Your task to perform on an android device: change text size in settings app Image 0: 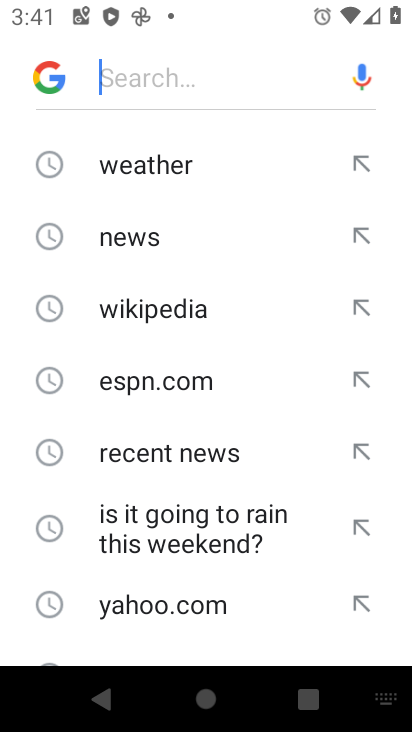
Step 0: press home button
Your task to perform on an android device: change text size in settings app Image 1: 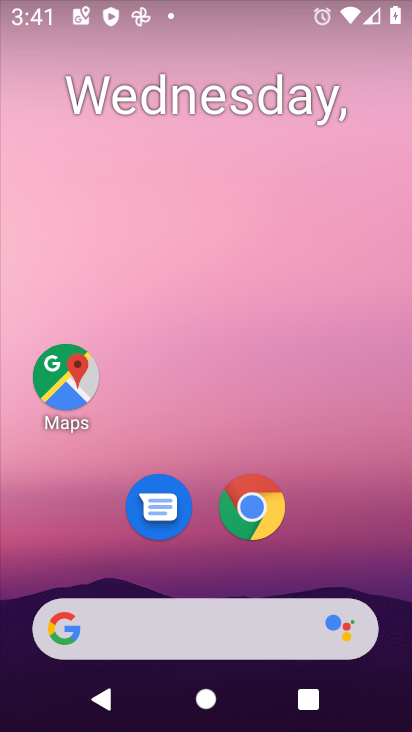
Step 1: drag from (328, 542) to (320, 310)
Your task to perform on an android device: change text size in settings app Image 2: 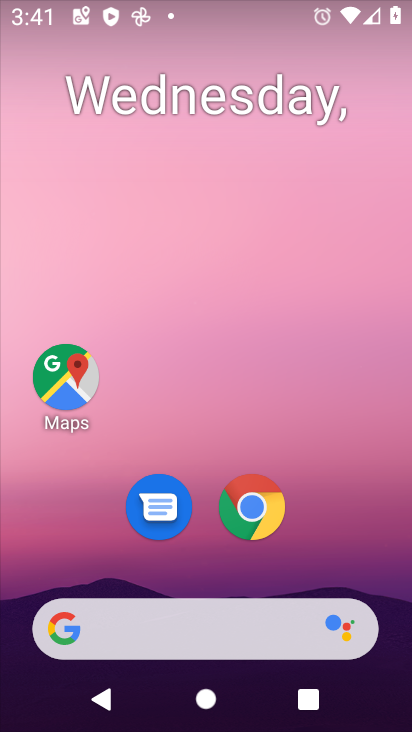
Step 2: drag from (296, 538) to (266, 96)
Your task to perform on an android device: change text size in settings app Image 3: 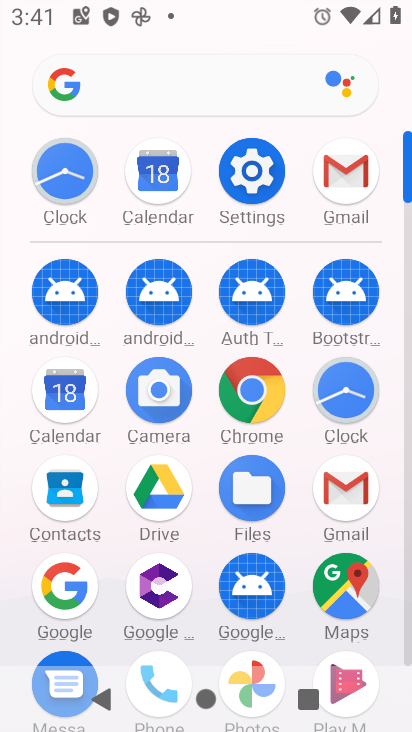
Step 3: click (257, 158)
Your task to perform on an android device: change text size in settings app Image 4: 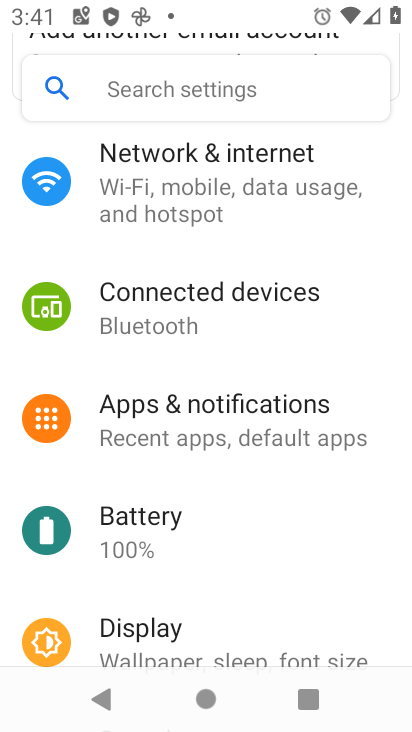
Step 4: drag from (265, 387) to (265, 205)
Your task to perform on an android device: change text size in settings app Image 5: 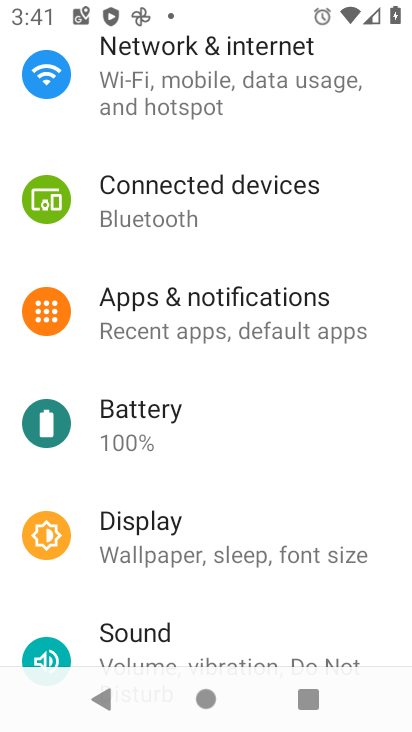
Step 5: drag from (368, 560) to (288, 316)
Your task to perform on an android device: change text size in settings app Image 6: 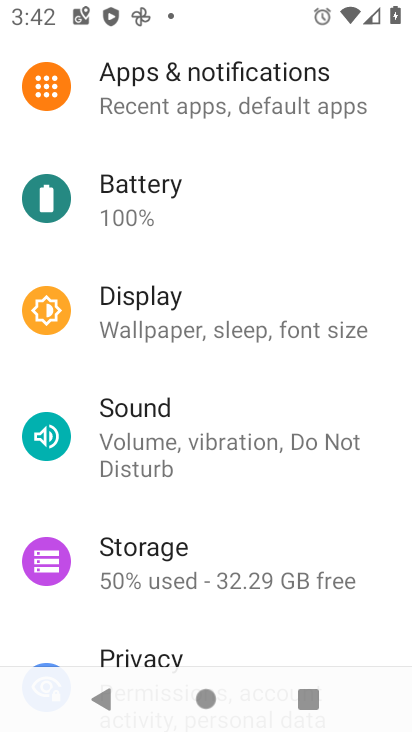
Step 6: drag from (275, 482) to (243, 363)
Your task to perform on an android device: change text size in settings app Image 7: 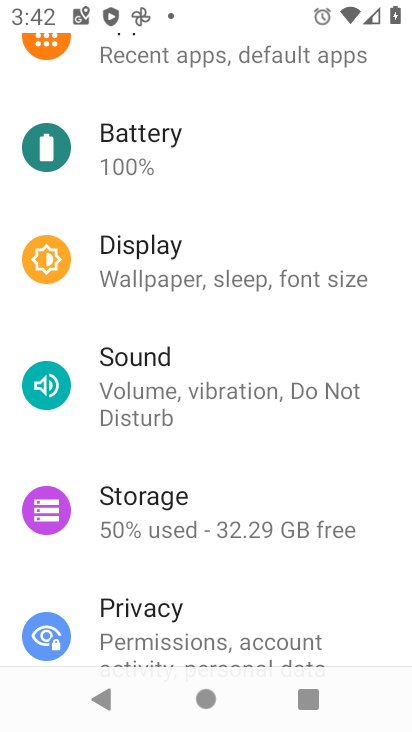
Step 7: click (232, 259)
Your task to perform on an android device: change text size in settings app Image 8: 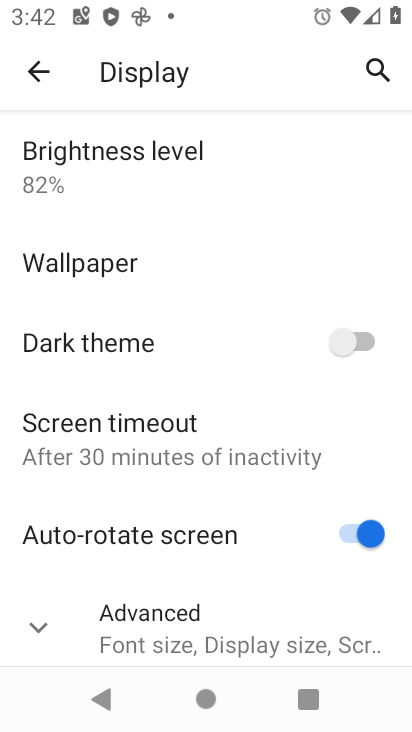
Step 8: click (52, 624)
Your task to perform on an android device: change text size in settings app Image 9: 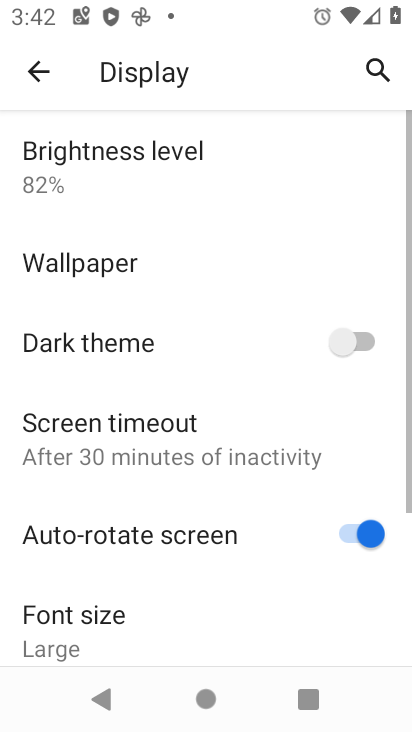
Step 9: click (81, 613)
Your task to perform on an android device: change text size in settings app Image 10: 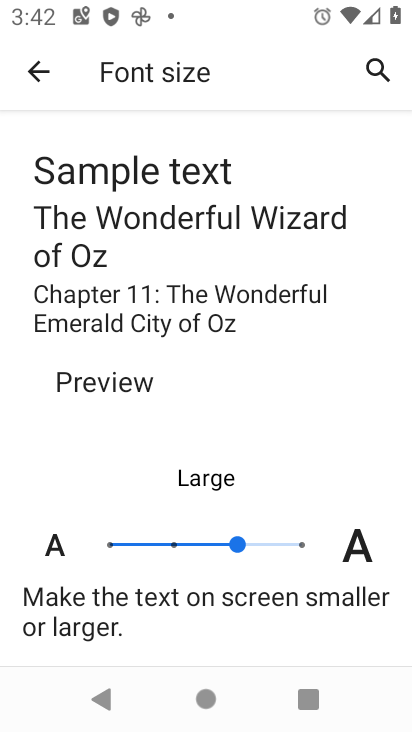
Step 10: task complete